Your task to perform on an android device: Check out the top rated books on Goodreads. Image 0: 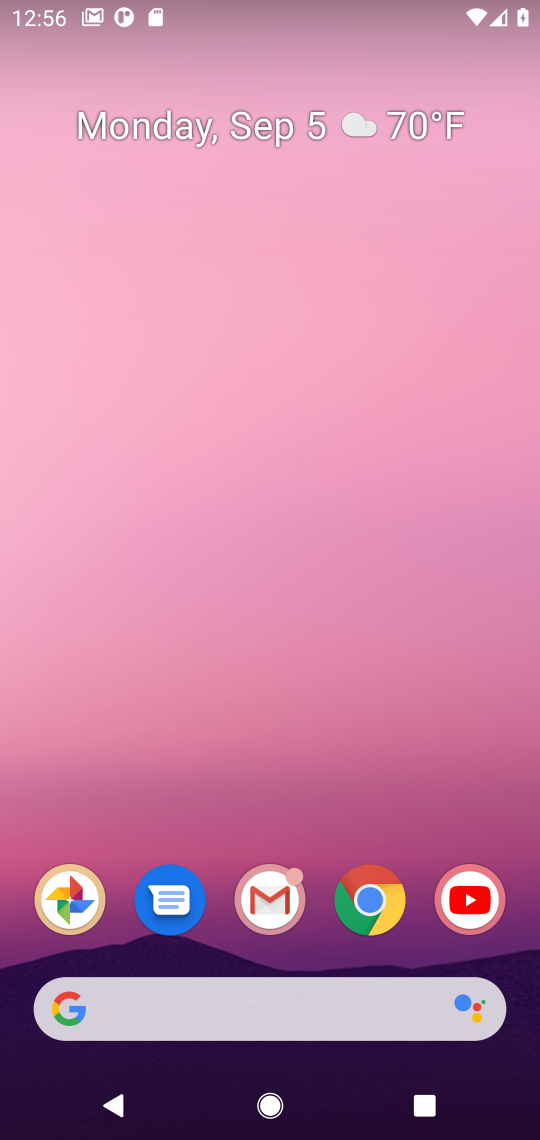
Step 0: click (374, 898)
Your task to perform on an android device: Check out the top rated books on Goodreads. Image 1: 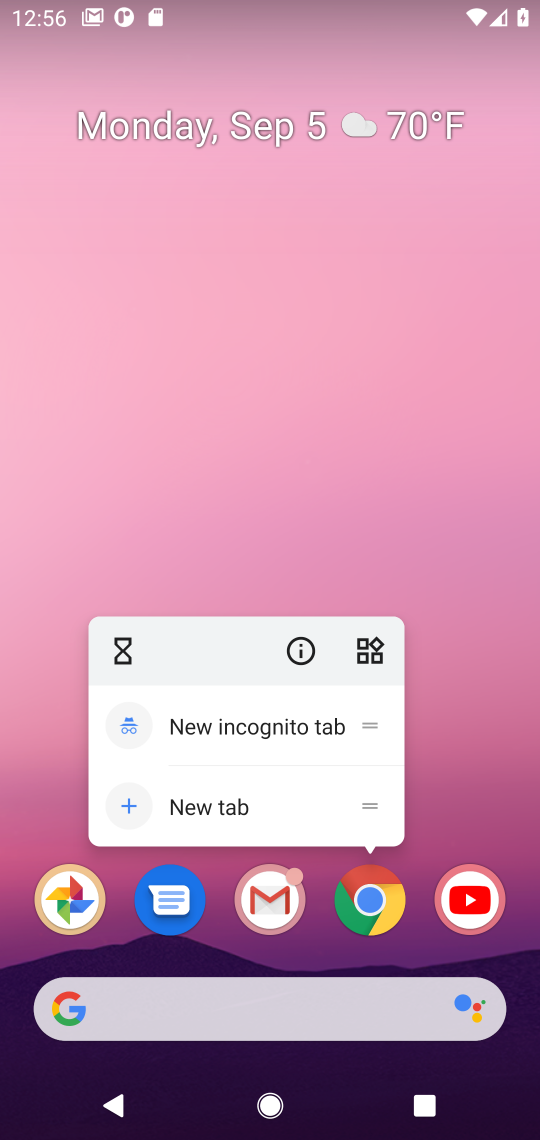
Step 1: click (374, 898)
Your task to perform on an android device: Check out the top rated books on Goodreads. Image 2: 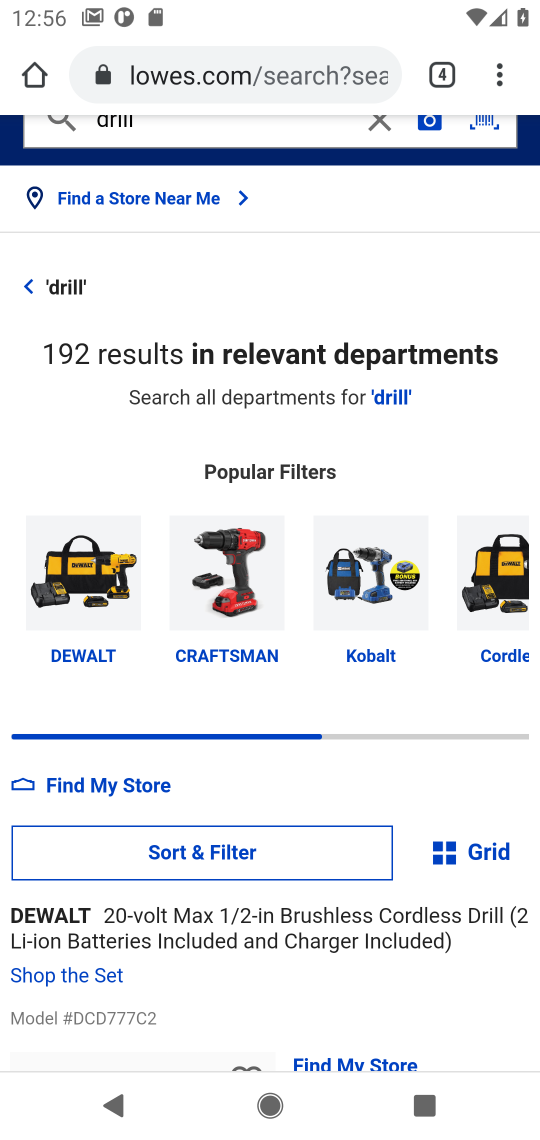
Step 2: drag from (499, 85) to (198, 249)
Your task to perform on an android device: Check out the top rated books on Goodreads. Image 3: 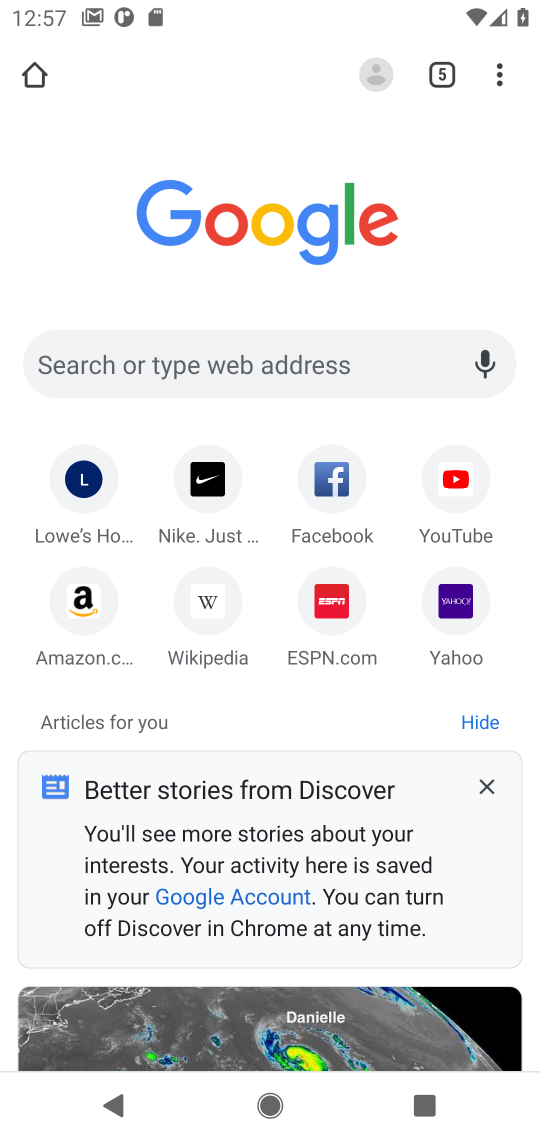
Step 3: click (217, 363)
Your task to perform on an android device: Check out the top rated books on Goodreads. Image 4: 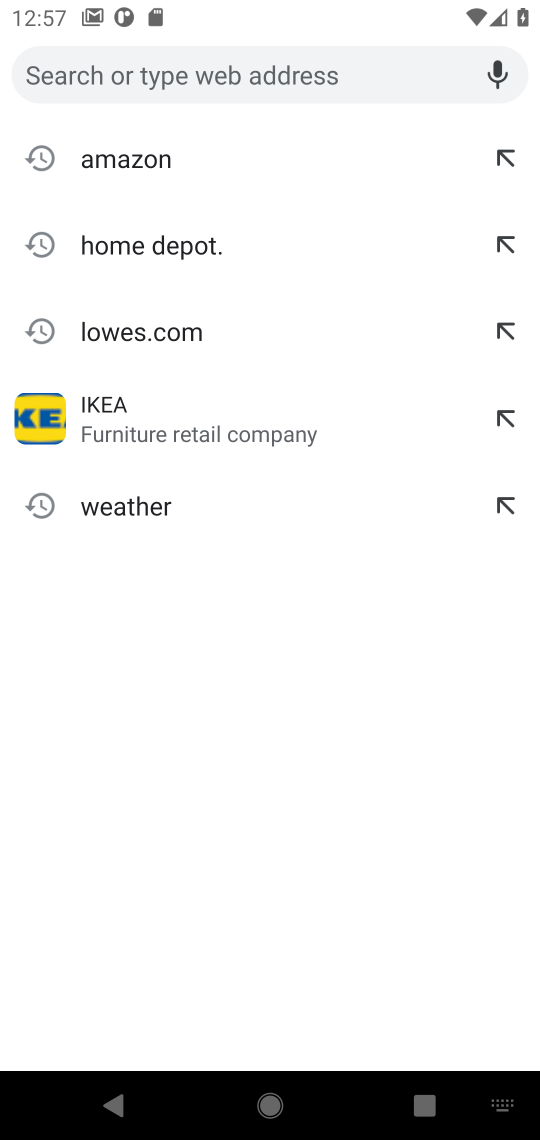
Step 4: type ""
Your task to perform on an android device: Check out the top rated books on Goodreads. Image 5: 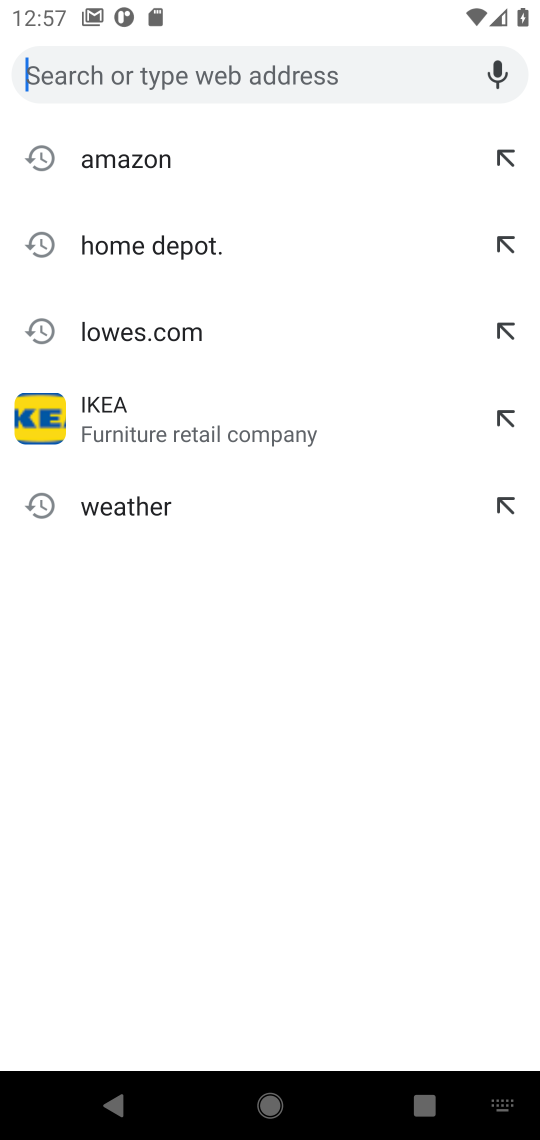
Step 5: type "Goodreads"
Your task to perform on an android device: Check out the top rated books on Goodreads. Image 6: 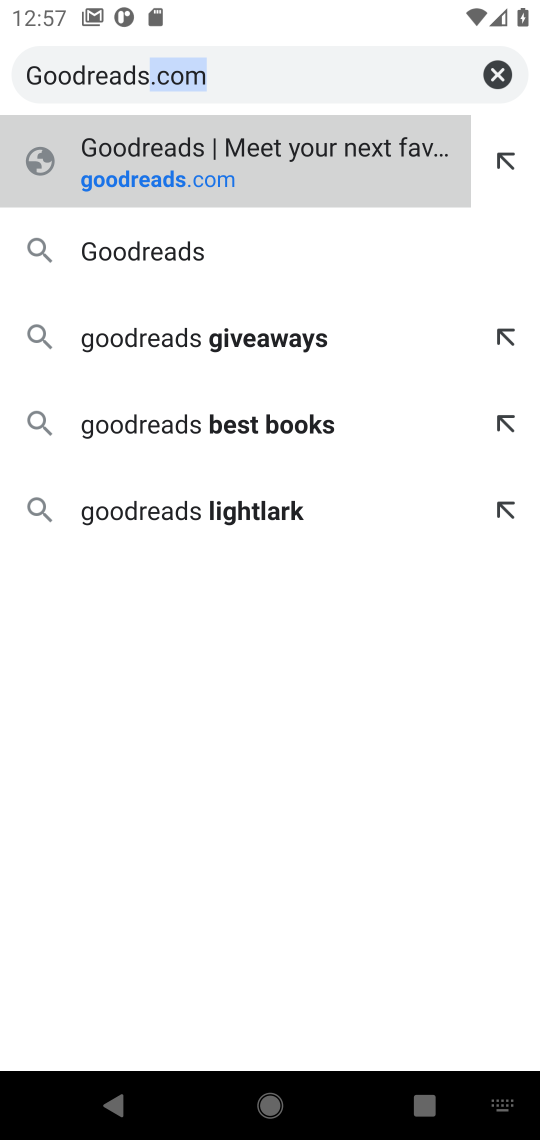
Step 6: click (152, 252)
Your task to perform on an android device: Check out the top rated books on Goodreads. Image 7: 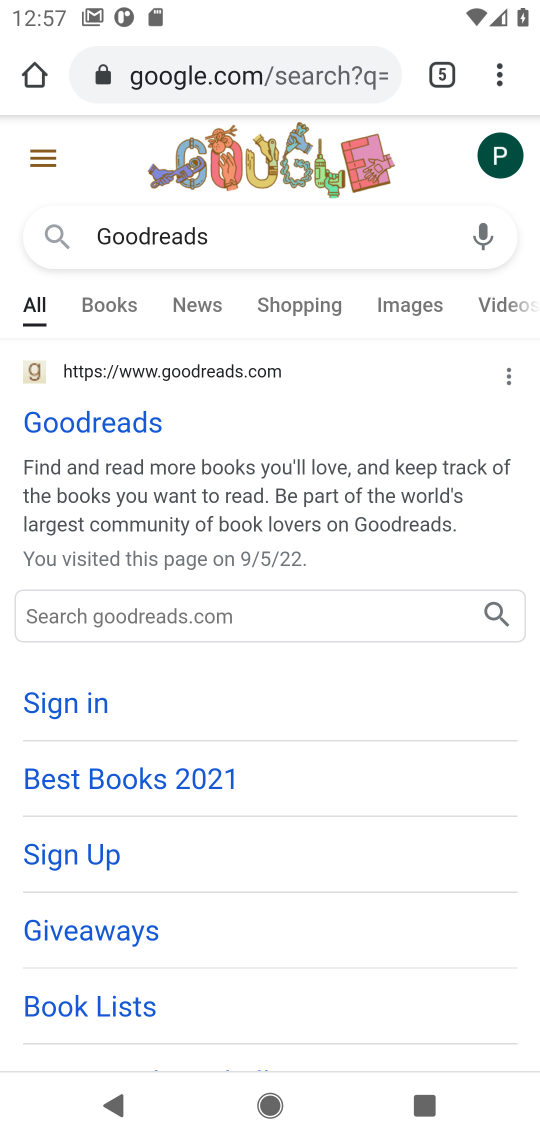
Step 7: click (72, 424)
Your task to perform on an android device: Check out the top rated books on Goodreads. Image 8: 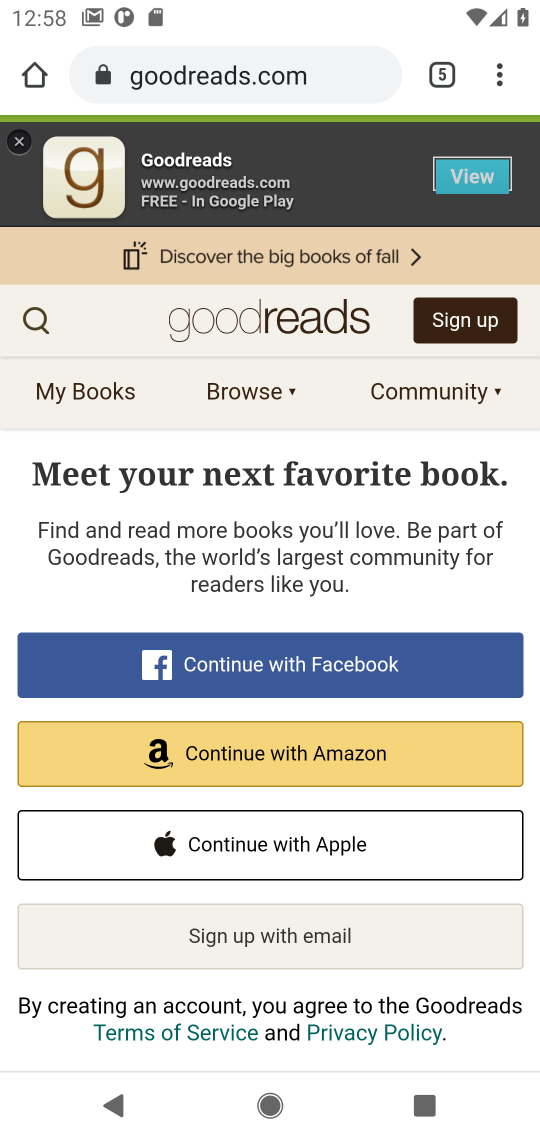
Step 8: click (37, 329)
Your task to perform on an android device: Check out the top rated books on Goodreads. Image 9: 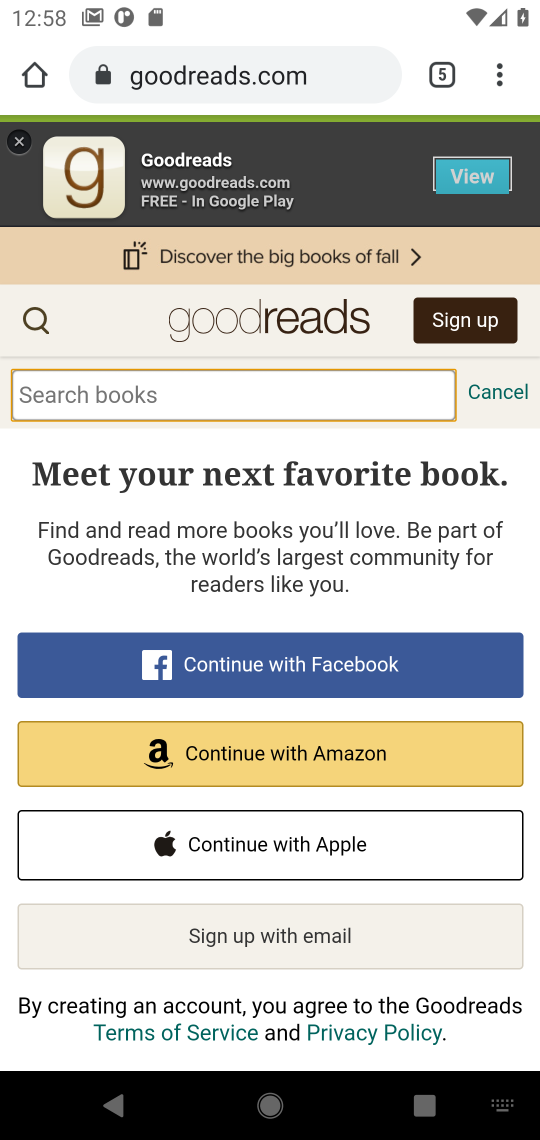
Step 9: type "top rated books "
Your task to perform on an android device: Check out the top rated books on Goodreads. Image 10: 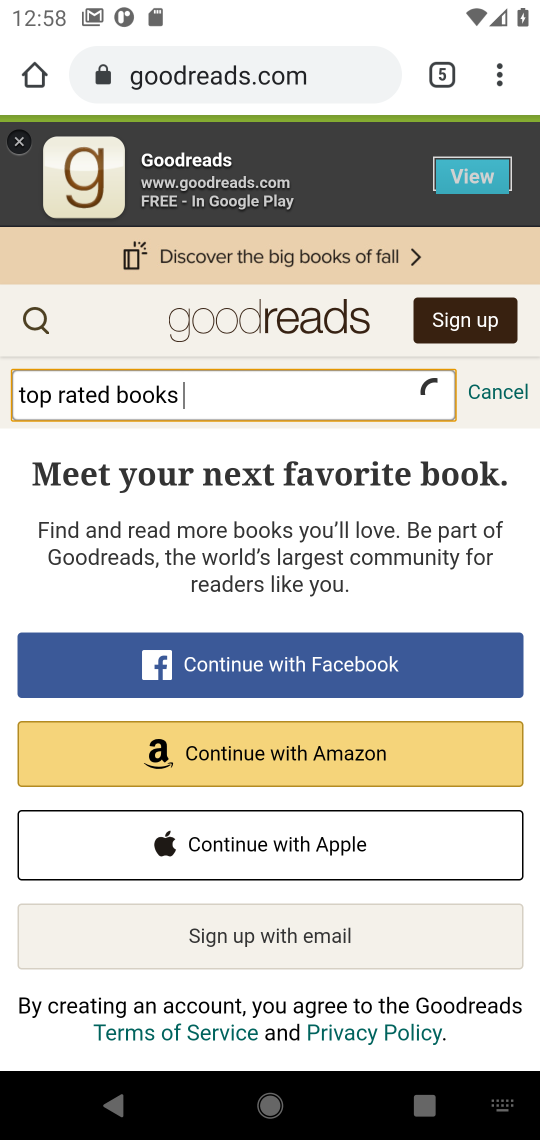
Step 10: type ""
Your task to perform on an android device: Check out the top rated books on Goodreads. Image 11: 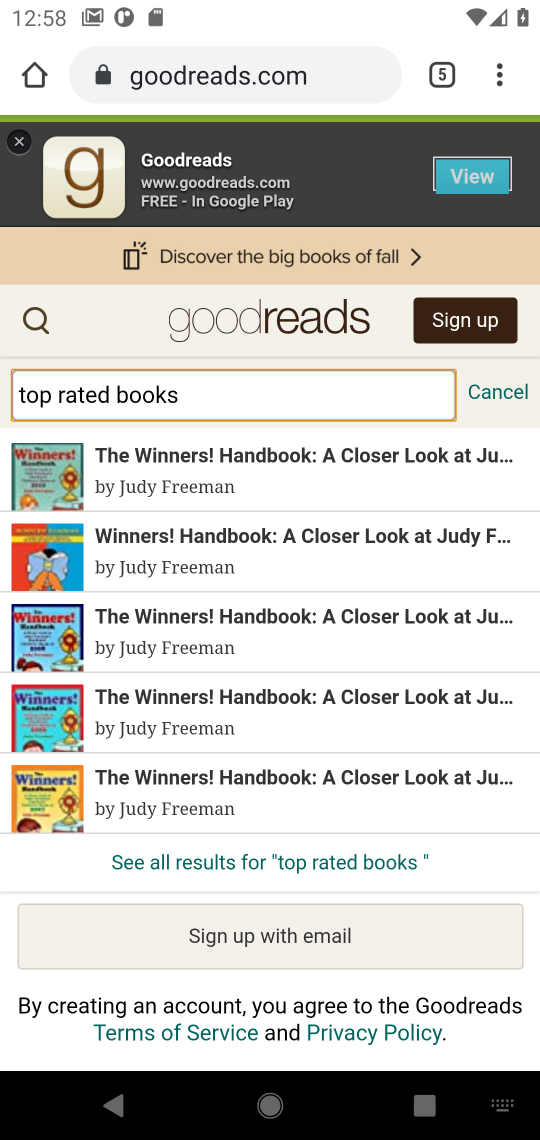
Step 11: click (358, 864)
Your task to perform on an android device: Check out the top rated books on Goodreads. Image 12: 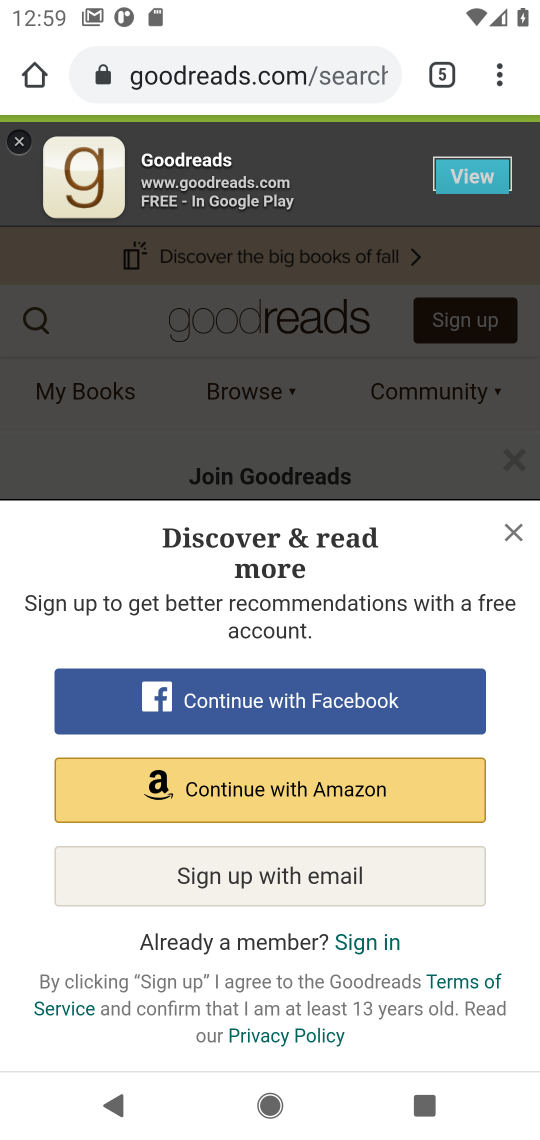
Step 12: click (509, 526)
Your task to perform on an android device: Check out the top rated books on Goodreads. Image 13: 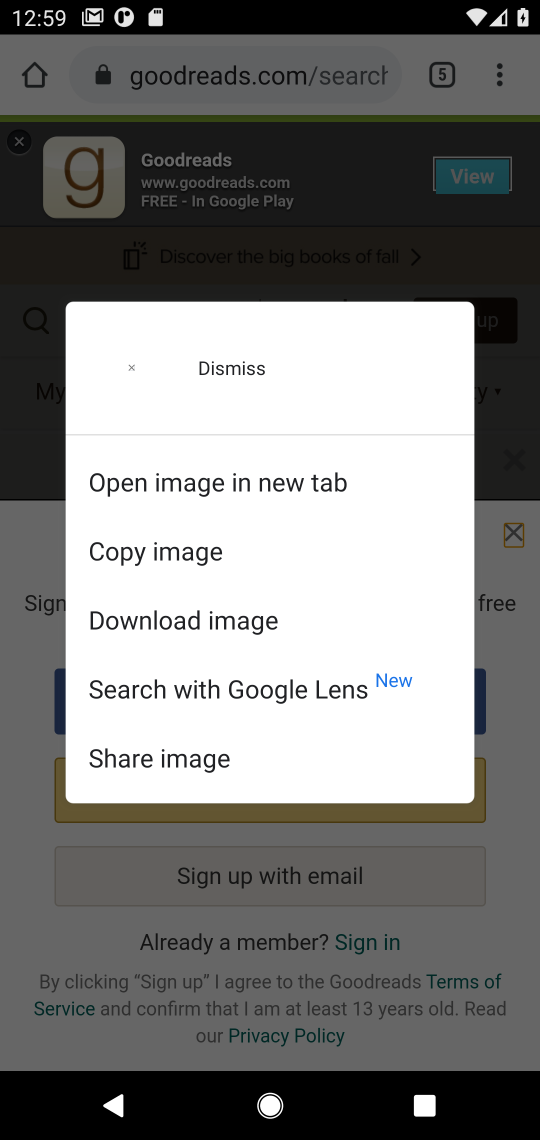
Step 13: click (509, 528)
Your task to perform on an android device: Check out the top rated books on Goodreads. Image 14: 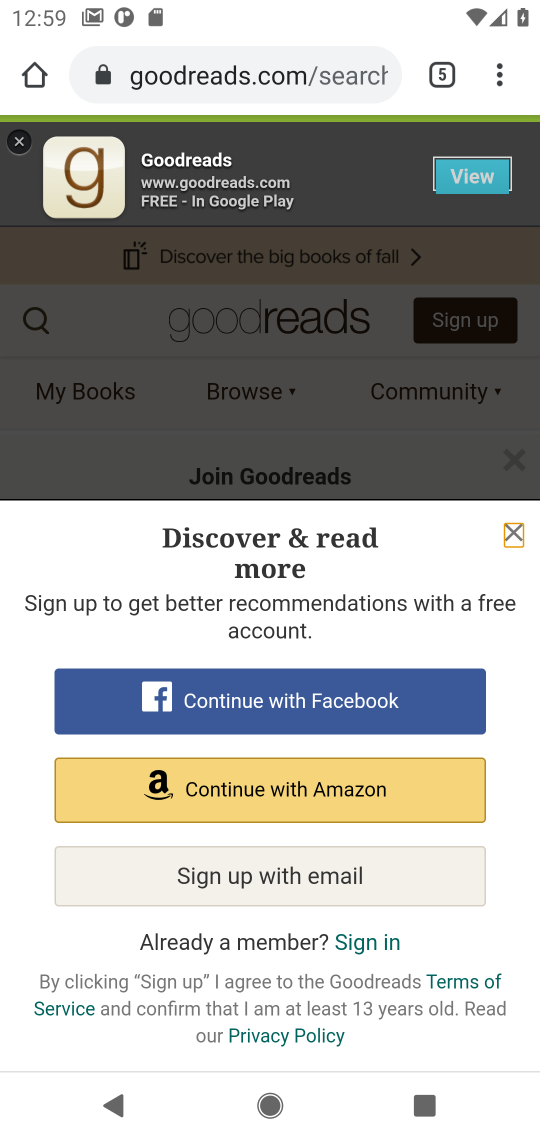
Step 14: click (511, 530)
Your task to perform on an android device: Check out the top rated books on Goodreads. Image 15: 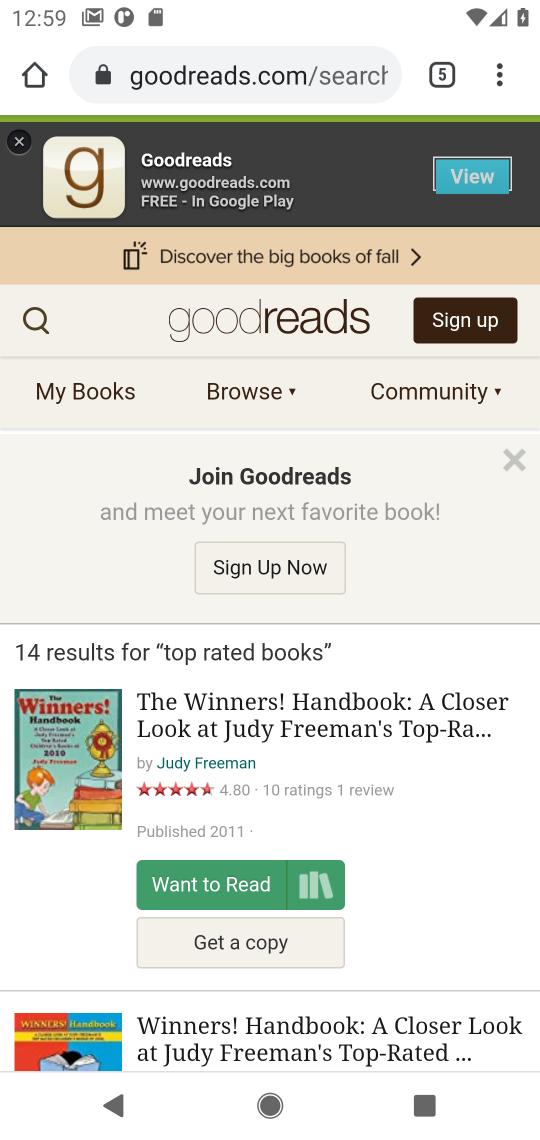
Step 15: task complete